Your task to perform on an android device: Open Google Maps Image 0: 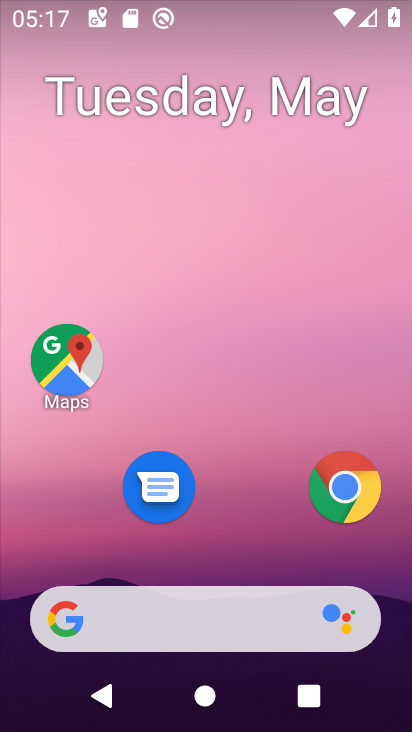
Step 0: click (50, 350)
Your task to perform on an android device: Open Google Maps Image 1: 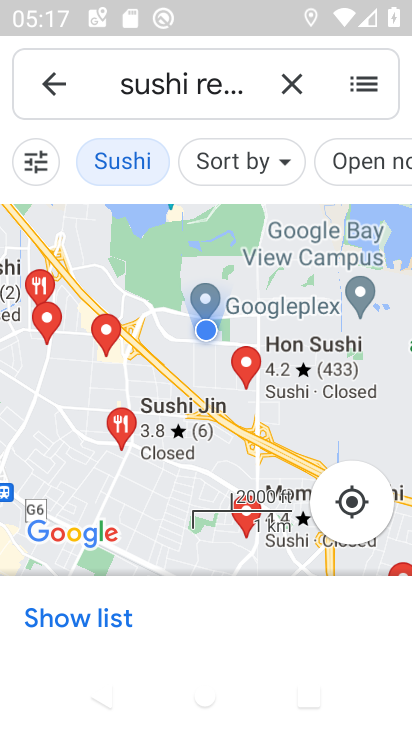
Step 1: task complete